Your task to perform on an android device: move an email to a new category in the gmail app Image 0: 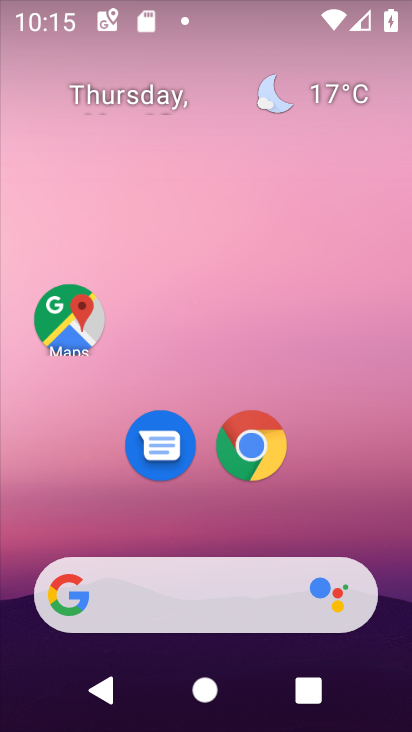
Step 0: drag from (255, 545) to (214, 13)
Your task to perform on an android device: move an email to a new category in the gmail app Image 1: 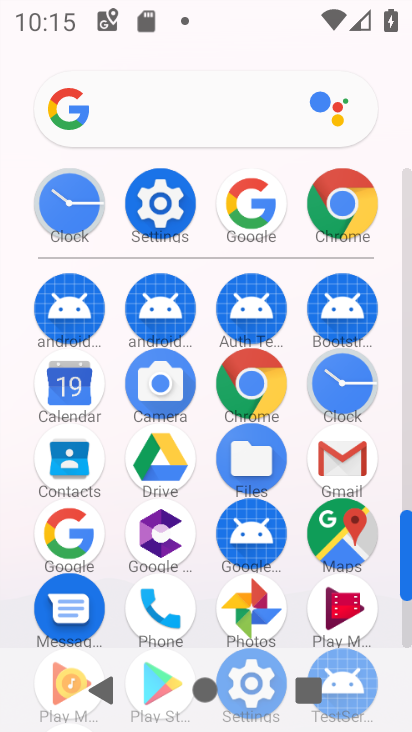
Step 1: click (337, 470)
Your task to perform on an android device: move an email to a new category in the gmail app Image 2: 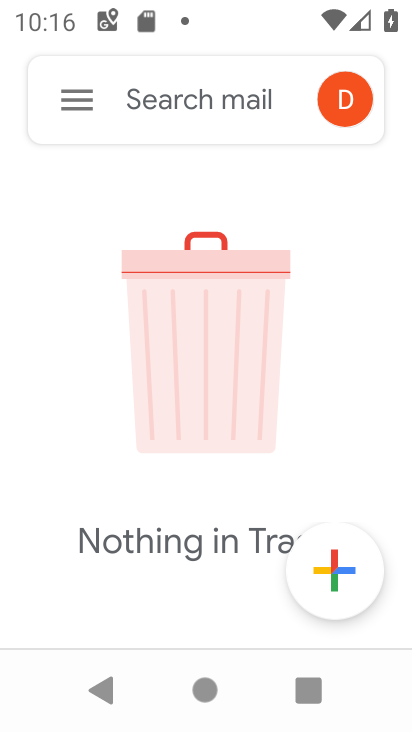
Step 2: click (85, 106)
Your task to perform on an android device: move an email to a new category in the gmail app Image 3: 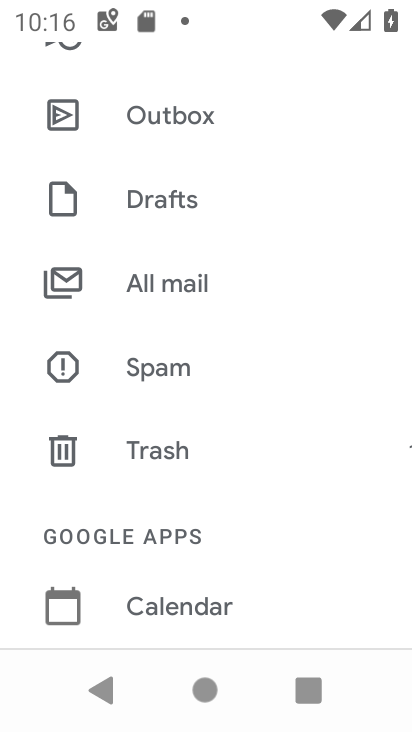
Step 3: drag from (197, 485) to (282, 592)
Your task to perform on an android device: move an email to a new category in the gmail app Image 4: 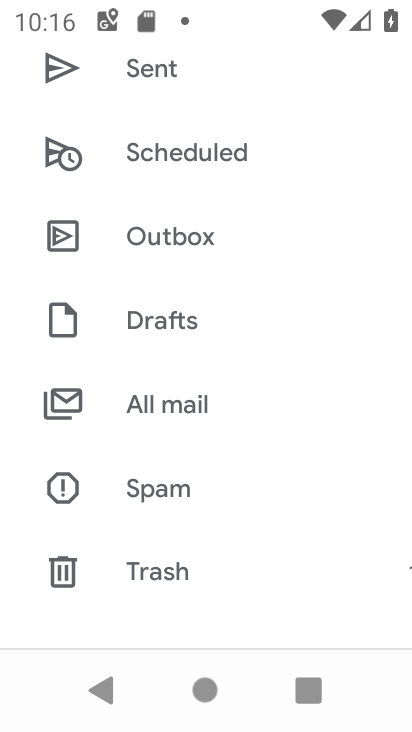
Step 4: click (208, 399)
Your task to perform on an android device: move an email to a new category in the gmail app Image 5: 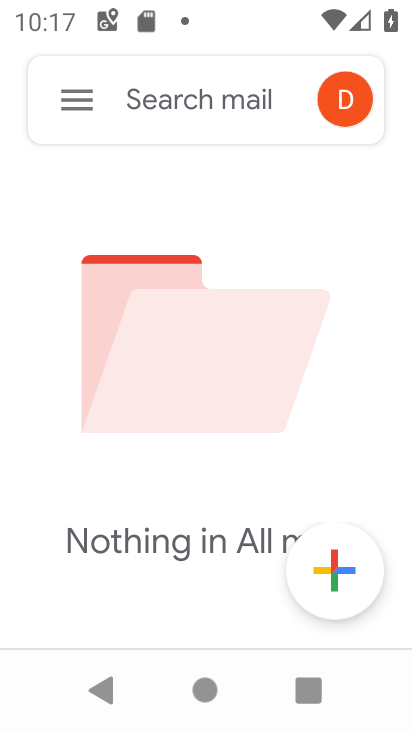
Step 5: task complete